Your task to perform on an android device: set the stopwatch Image 0: 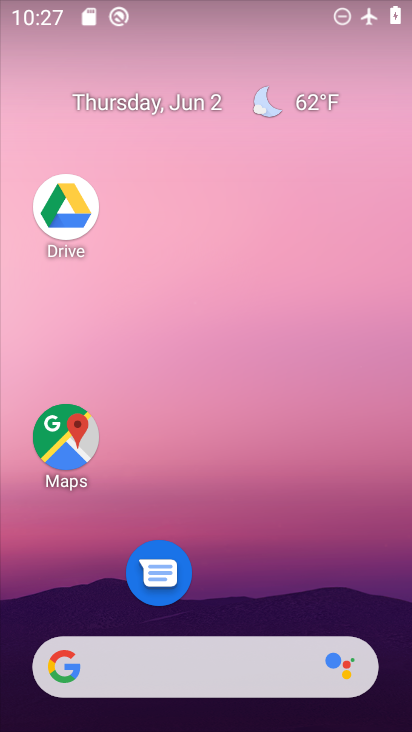
Step 0: drag from (207, 617) to (218, 2)
Your task to perform on an android device: set the stopwatch Image 1: 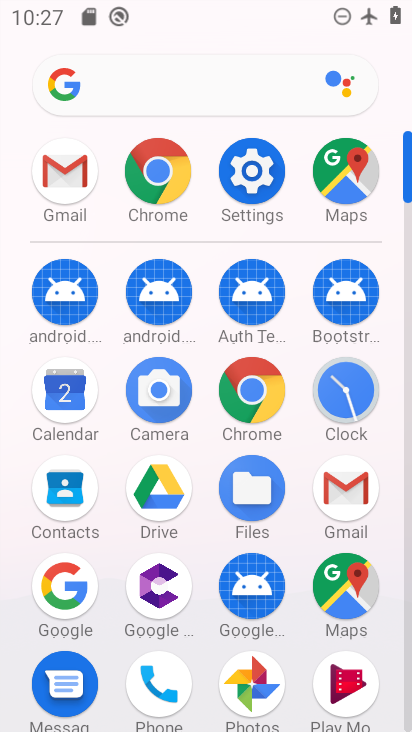
Step 1: click (354, 386)
Your task to perform on an android device: set the stopwatch Image 2: 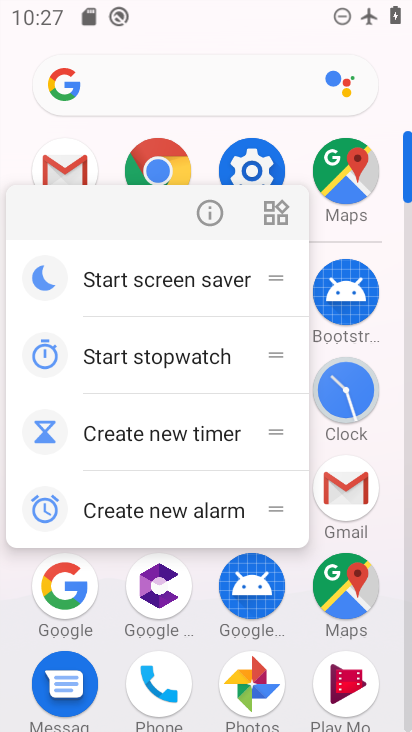
Step 2: click (354, 386)
Your task to perform on an android device: set the stopwatch Image 3: 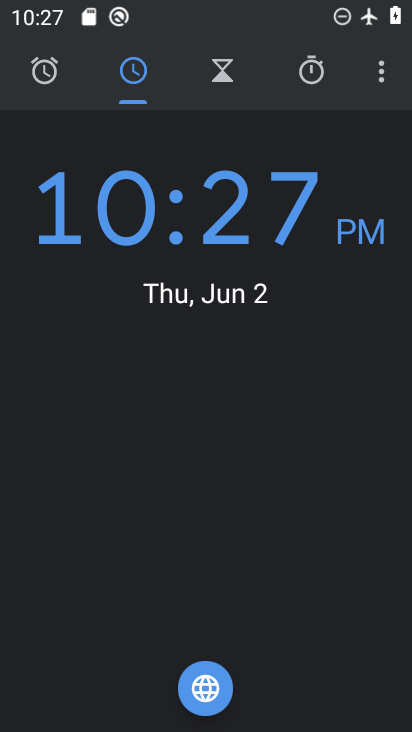
Step 3: click (314, 65)
Your task to perform on an android device: set the stopwatch Image 4: 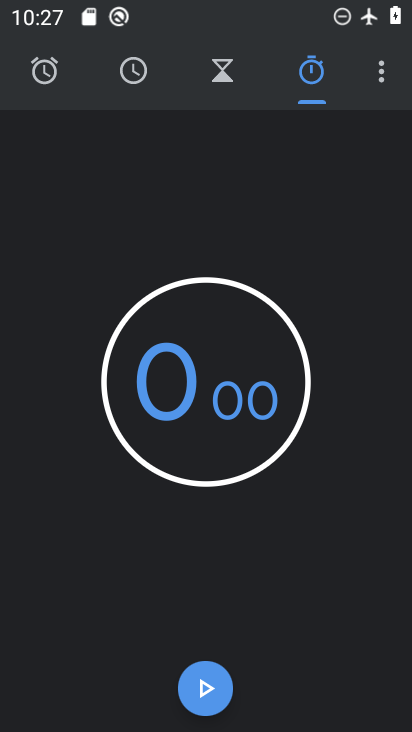
Step 4: task complete